Your task to perform on an android device: delete the emails in spam in the gmail app Image 0: 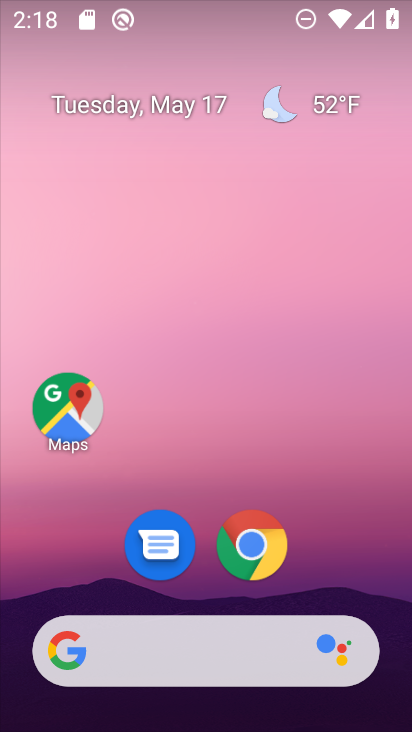
Step 0: drag from (359, 568) to (367, 231)
Your task to perform on an android device: delete the emails in spam in the gmail app Image 1: 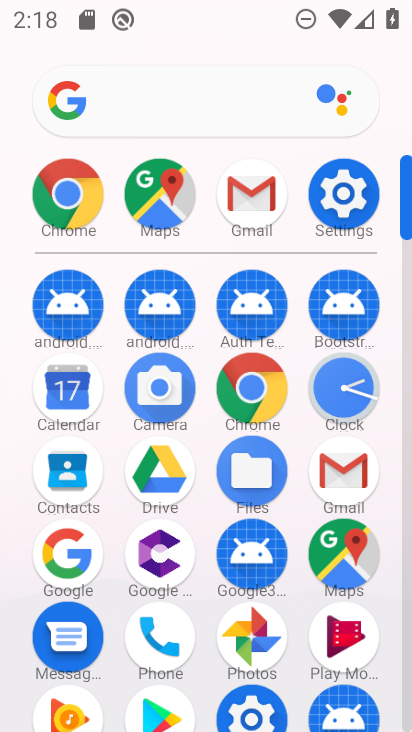
Step 1: click (348, 479)
Your task to perform on an android device: delete the emails in spam in the gmail app Image 2: 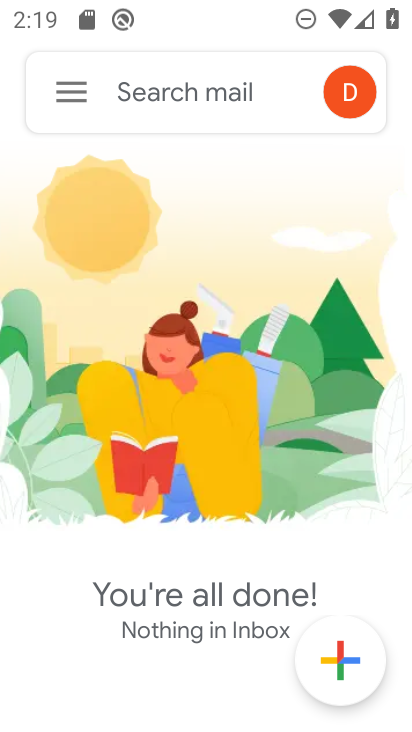
Step 2: click (77, 83)
Your task to perform on an android device: delete the emails in spam in the gmail app Image 3: 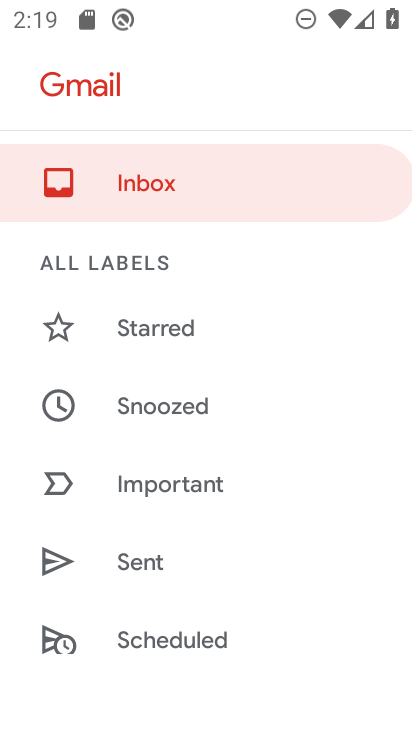
Step 3: drag from (295, 602) to (310, 473)
Your task to perform on an android device: delete the emails in spam in the gmail app Image 4: 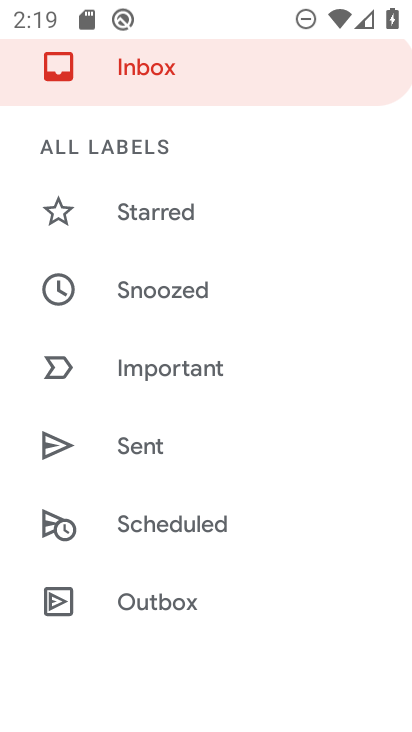
Step 4: drag from (299, 550) to (310, 394)
Your task to perform on an android device: delete the emails in spam in the gmail app Image 5: 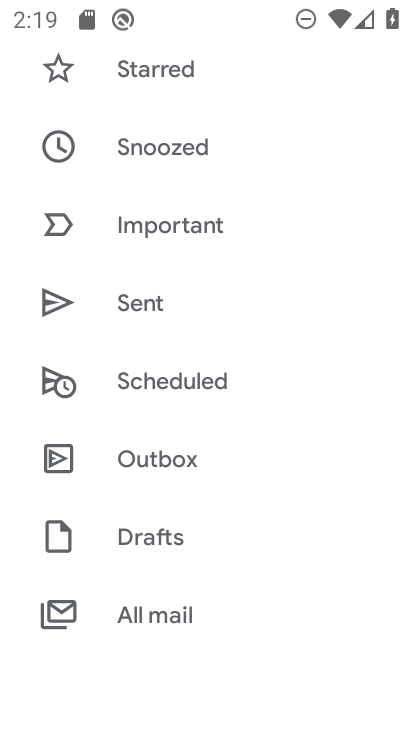
Step 5: drag from (302, 606) to (294, 439)
Your task to perform on an android device: delete the emails in spam in the gmail app Image 6: 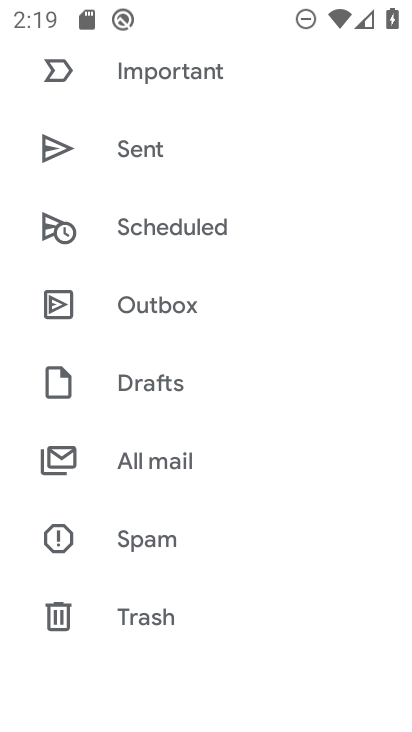
Step 6: drag from (304, 617) to (313, 500)
Your task to perform on an android device: delete the emails in spam in the gmail app Image 7: 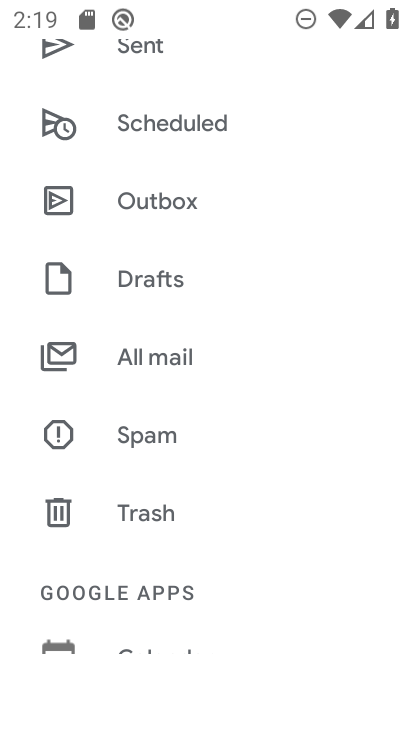
Step 7: drag from (314, 592) to (308, 444)
Your task to perform on an android device: delete the emails in spam in the gmail app Image 8: 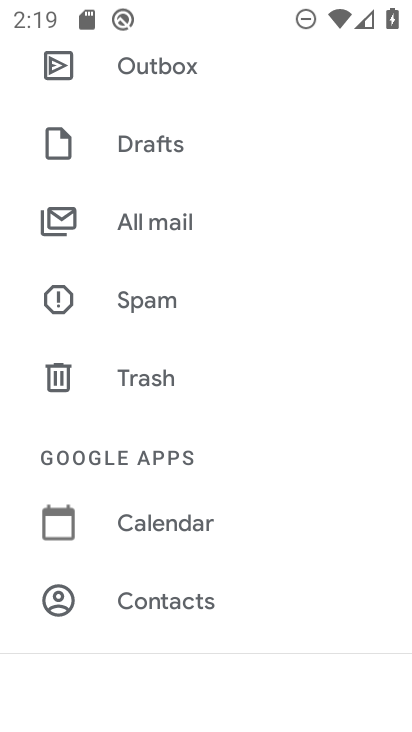
Step 8: drag from (296, 616) to (292, 480)
Your task to perform on an android device: delete the emails in spam in the gmail app Image 9: 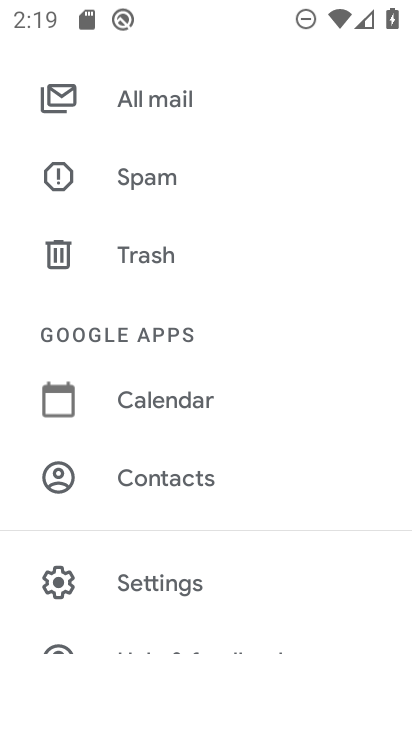
Step 9: drag from (294, 608) to (294, 490)
Your task to perform on an android device: delete the emails in spam in the gmail app Image 10: 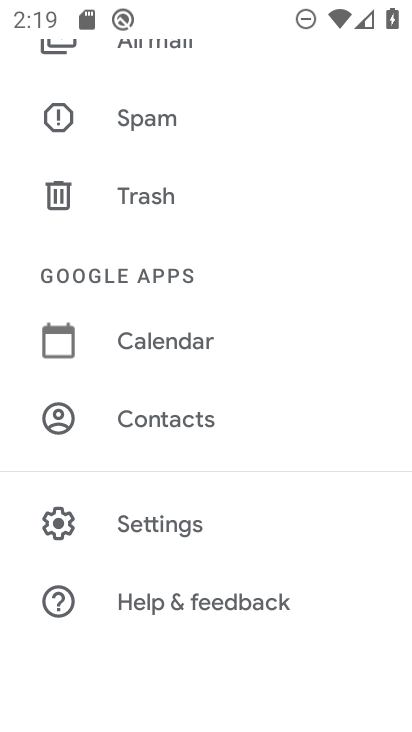
Step 10: drag from (308, 629) to (302, 503)
Your task to perform on an android device: delete the emails in spam in the gmail app Image 11: 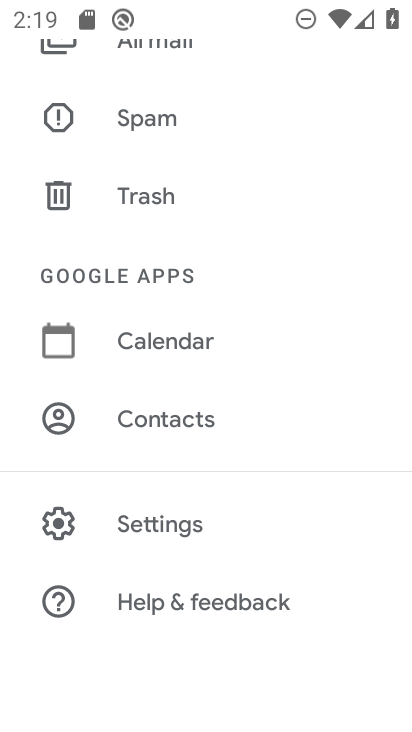
Step 11: drag from (336, 276) to (321, 457)
Your task to perform on an android device: delete the emails in spam in the gmail app Image 12: 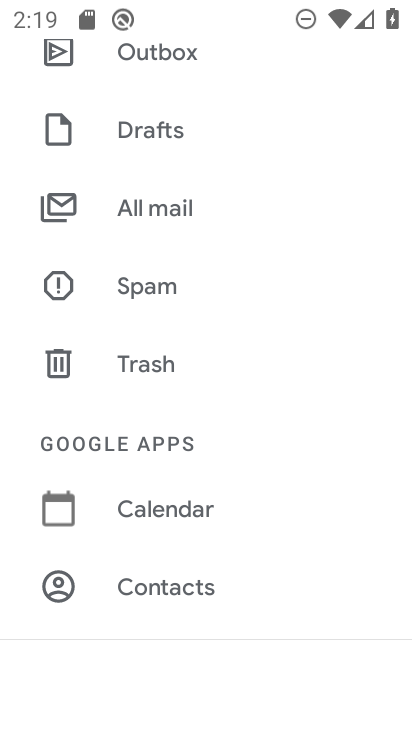
Step 12: drag from (322, 226) to (303, 385)
Your task to perform on an android device: delete the emails in spam in the gmail app Image 13: 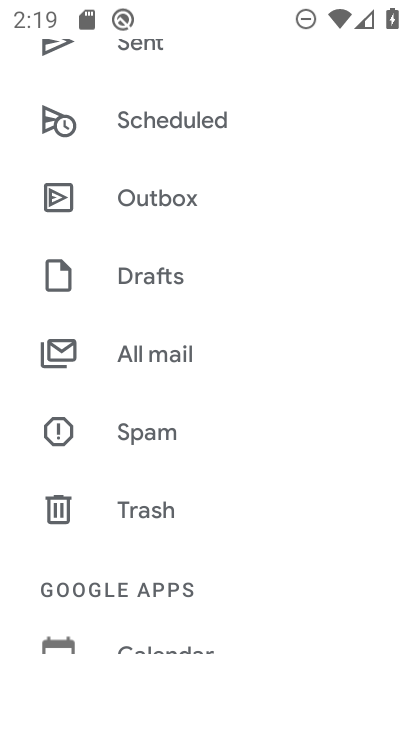
Step 13: drag from (313, 250) to (297, 360)
Your task to perform on an android device: delete the emails in spam in the gmail app Image 14: 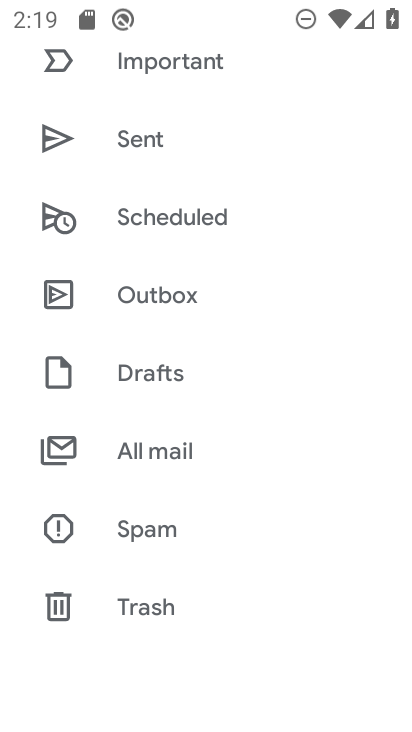
Step 14: drag from (293, 199) to (290, 322)
Your task to perform on an android device: delete the emails in spam in the gmail app Image 15: 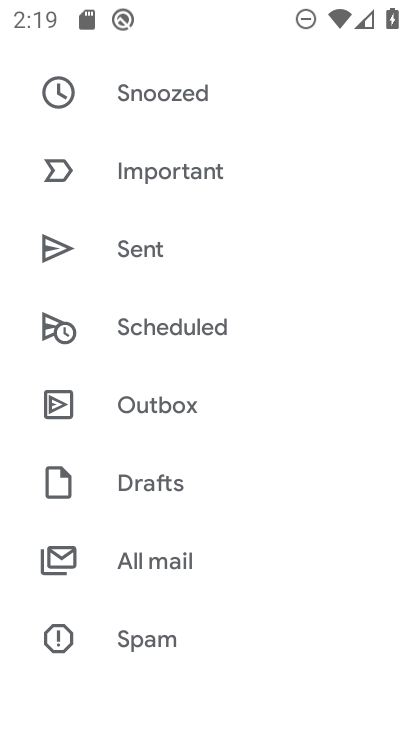
Step 15: drag from (284, 168) to (263, 292)
Your task to perform on an android device: delete the emails in spam in the gmail app Image 16: 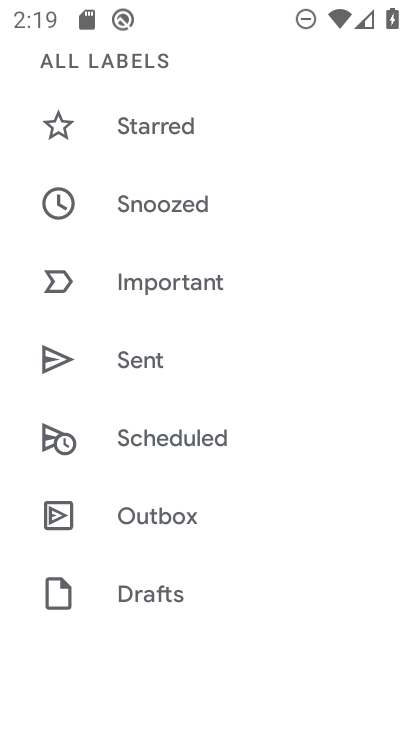
Step 16: drag from (279, 183) to (270, 297)
Your task to perform on an android device: delete the emails in spam in the gmail app Image 17: 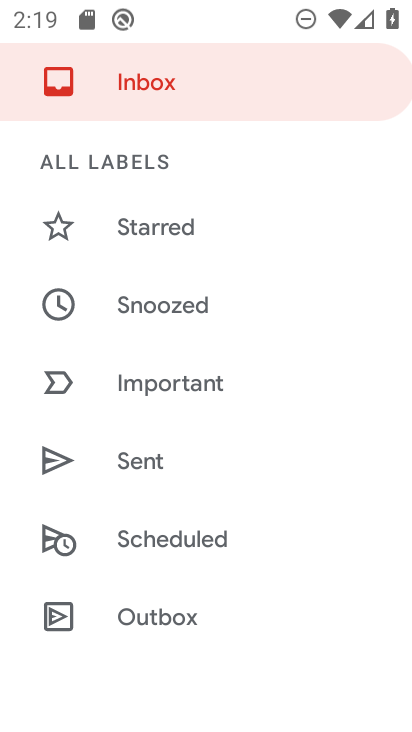
Step 17: drag from (284, 169) to (282, 273)
Your task to perform on an android device: delete the emails in spam in the gmail app Image 18: 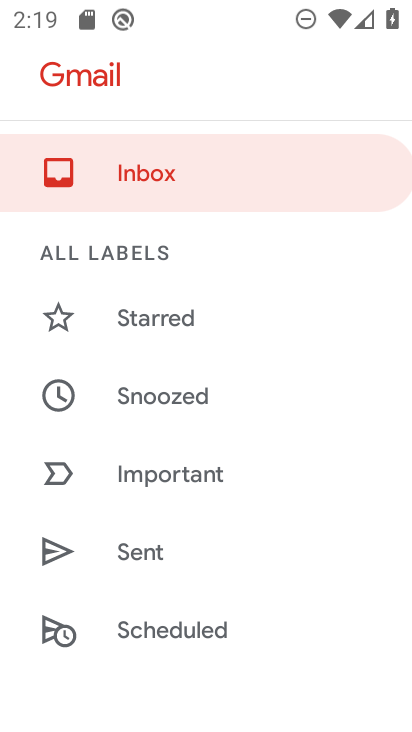
Step 18: click (185, 172)
Your task to perform on an android device: delete the emails in spam in the gmail app Image 19: 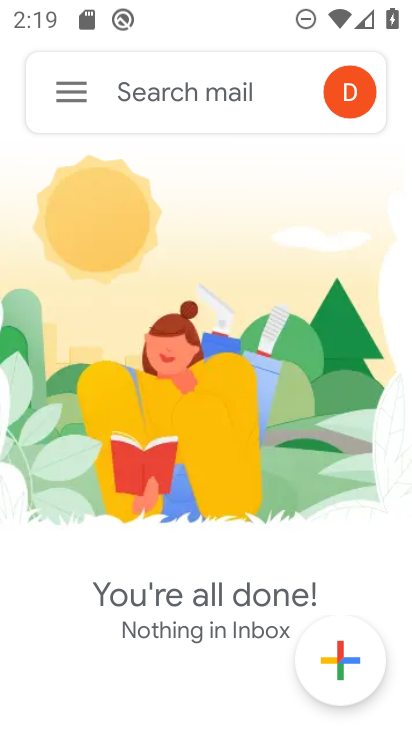
Step 19: click (66, 78)
Your task to perform on an android device: delete the emails in spam in the gmail app Image 20: 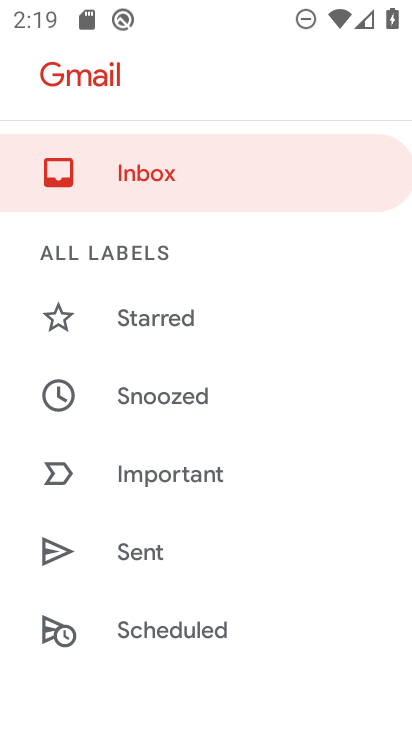
Step 20: drag from (242, 512) to (276, 312)
Your task to perform on an android device: delete the emails in spam in the gmail app Image 21: 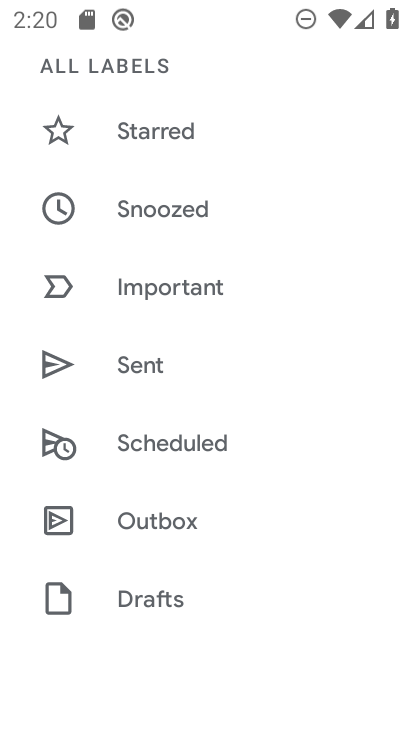
Step 21: drag from (272, 545) to (278, 409)
Your task to perform on an android device: delete the emails in spam in the gmail app Image 22: 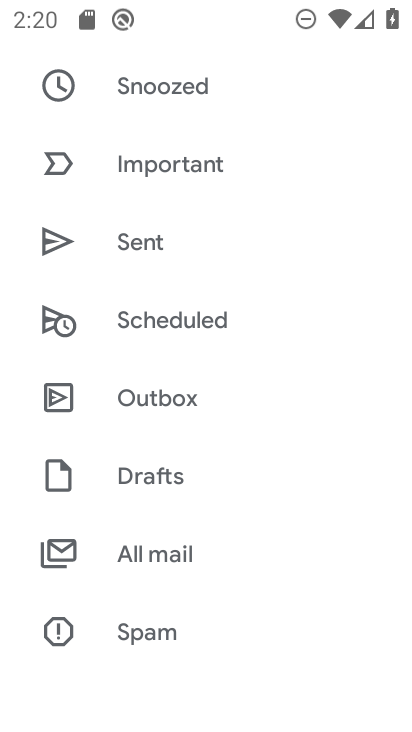
Step 22: click (174, 636)
Your task to perform on an android device: delete the emails in spam in the gmail app Image 23: 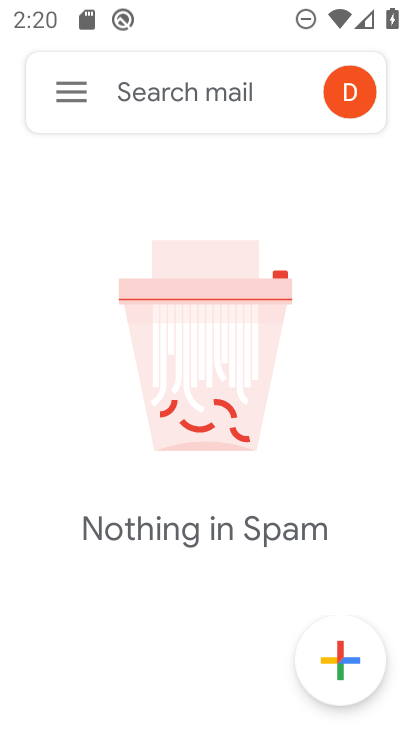
Step 23: task complete